Your task to perform on an android device: find which apps use the phone's location Image 0: 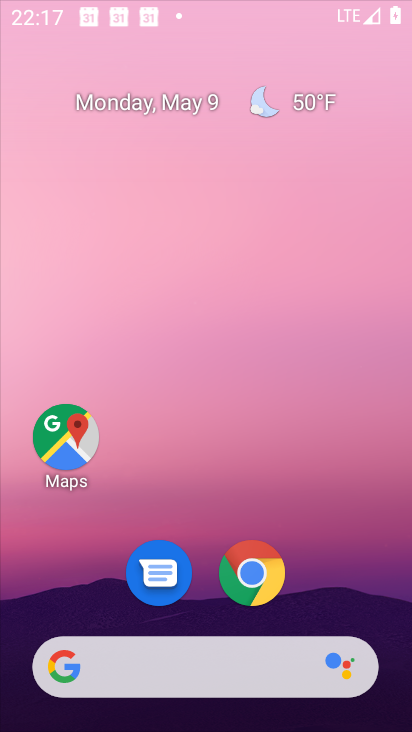
Step 0: click (296, 65)
Your task to perform on an android device: find which apps use the phone's location Image 1: 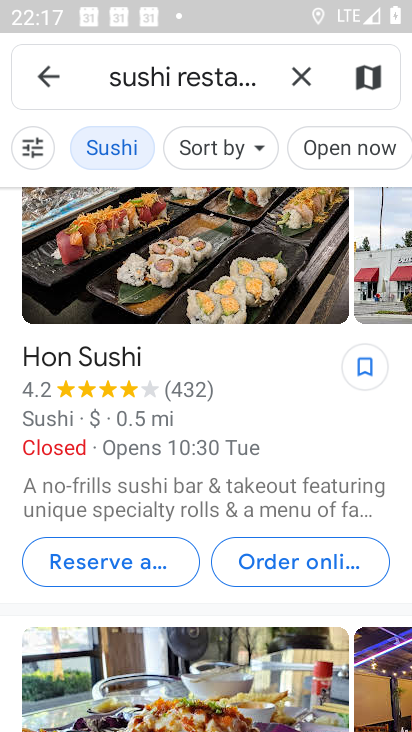
Step 1: press home button
Your task to perform on an android device: find which apps use the phone's location Image 2: 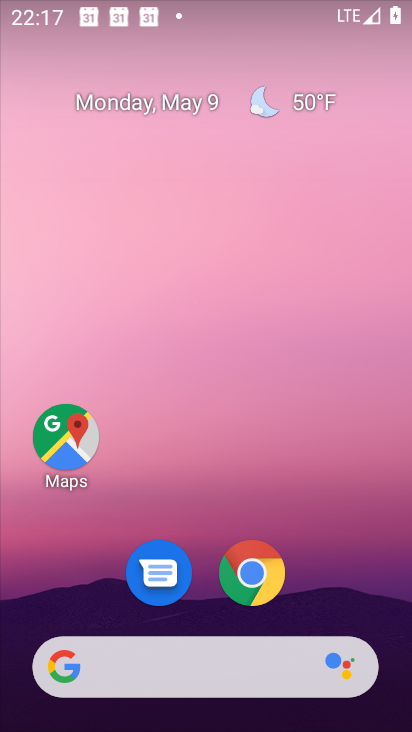
Step 2: drag from (367, 563) to (242, 96)
Your task to perform on an android device: find which apps use the phone's location Image 3: 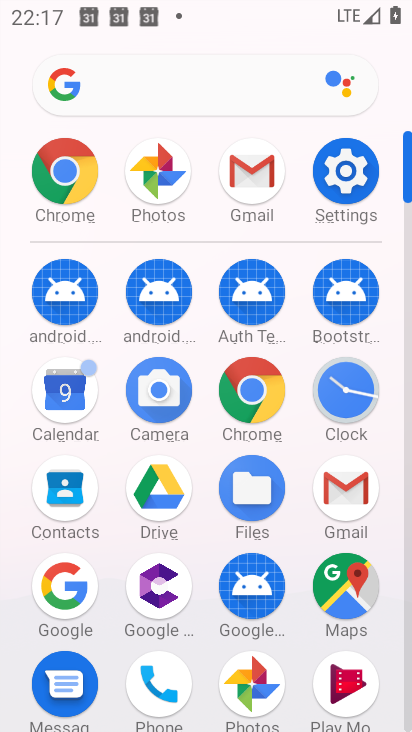
Step 3: click (353, 166)
Your task to perform on an android device: find which apps use the phone's location Image 4: 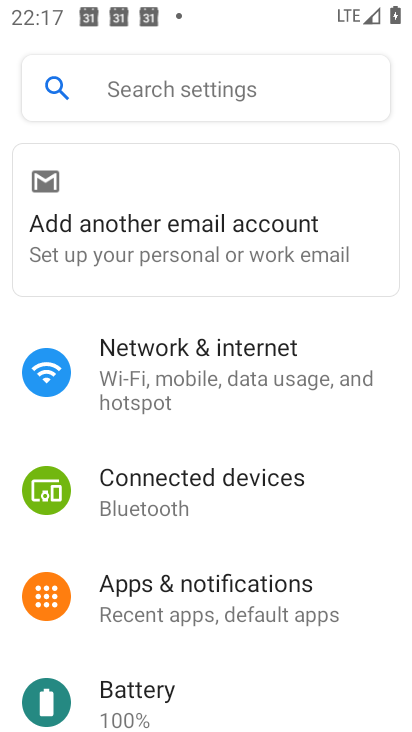
Step 4: drag from (249, 647) to (128, 152)
Your task to perform on an android device: find which apps use the phone's location Image 5: 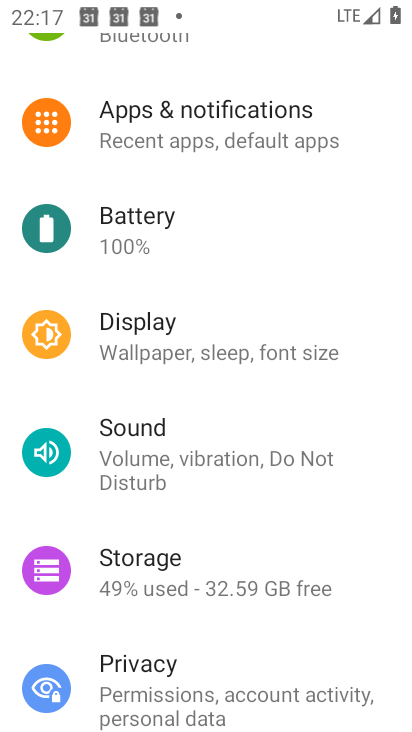
Step 5: drag from (290, 648) to (296, 213)
Your task to perform on an android device: find which apps use the phone's location Image 6: 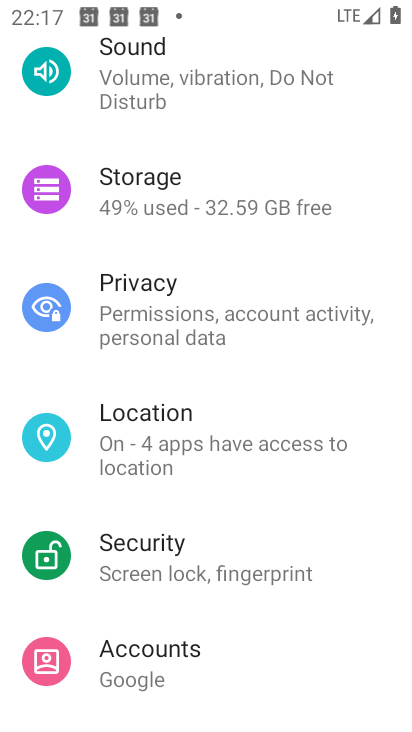
Step 6: click (188, 434)
Your task to perform on an android device: find which apps use the phone's location Image 7: 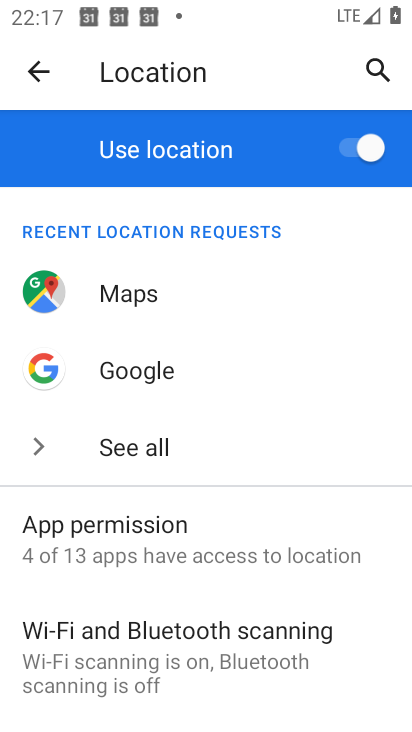
Step 7: drag from (289, 629) to (270, 400)
Your task to perform on an android device: find which apps use the phone's location Image 8: 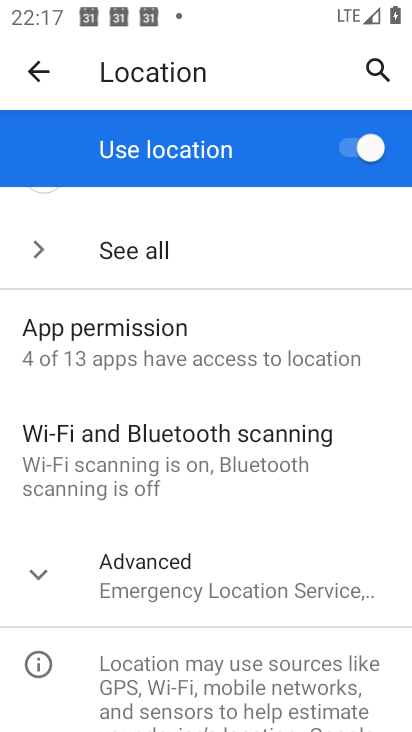
Step 8: click (228, 323)
Your task to perform on an android device: find which apps use the phone's location Image 9: 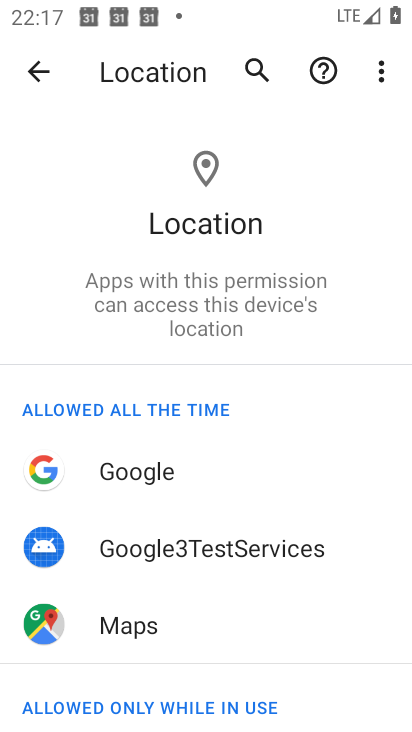
Step 9: task complete